Your task to perform on an android device: Open Google Chrome Image 0: 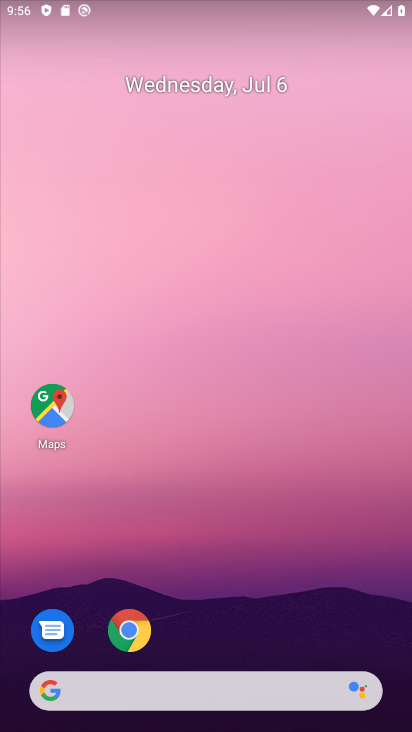
Step 0: click (138, 620)
Your task to perform on an android device: Open Google Chrome Image 1: 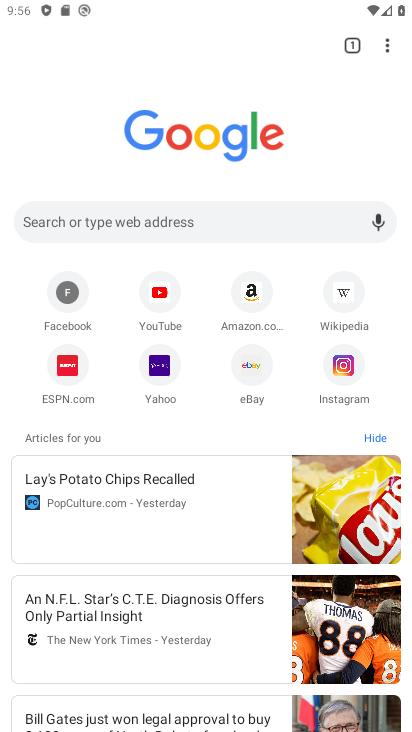
Step 1: task complete